Your task to perform on an android device: What's the news in Brunei? Image 0: 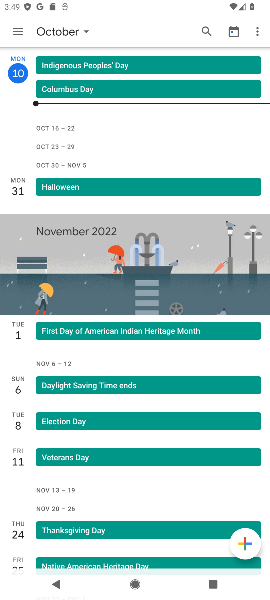
Step 0: task complete